Your task to perform on an android device: Go to settings Image 0: 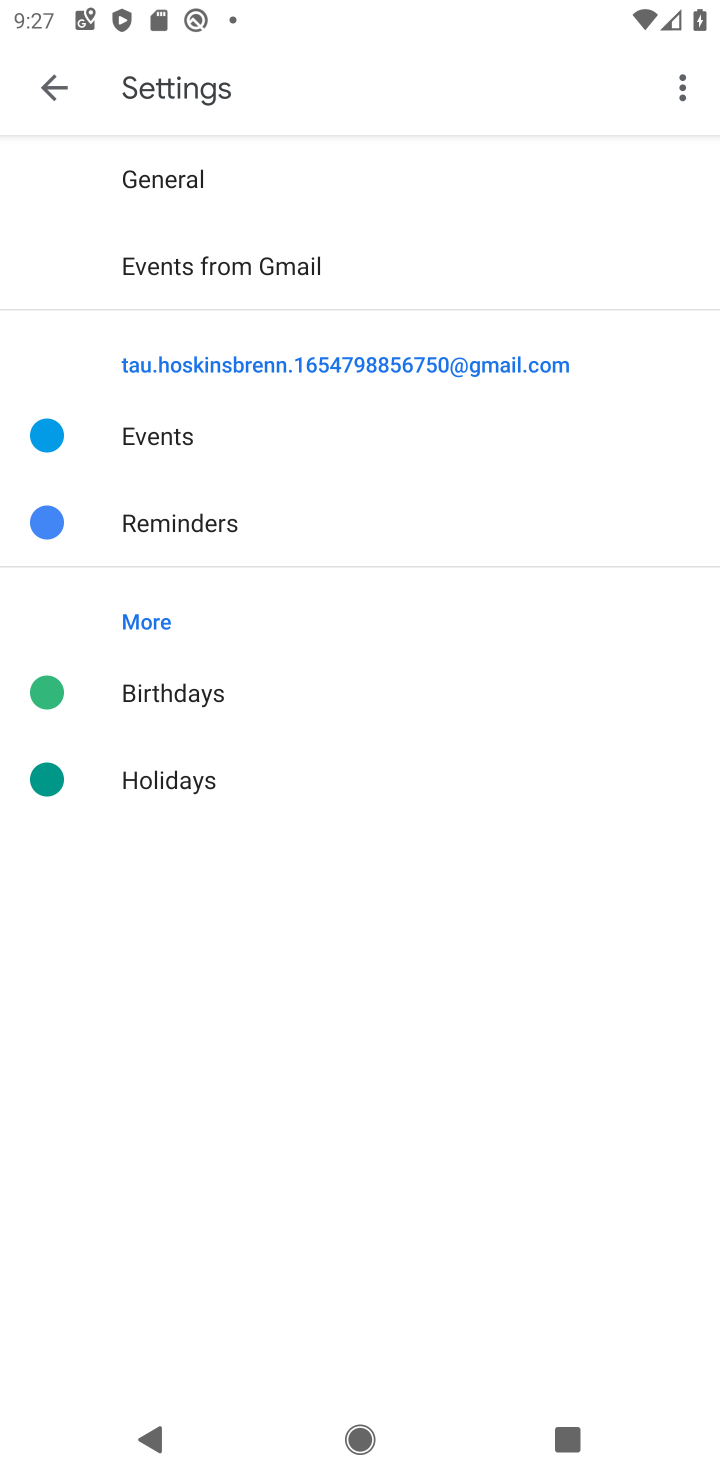
Step 0: press home button
Your task to perform on an android device: Go to settings Image 1: 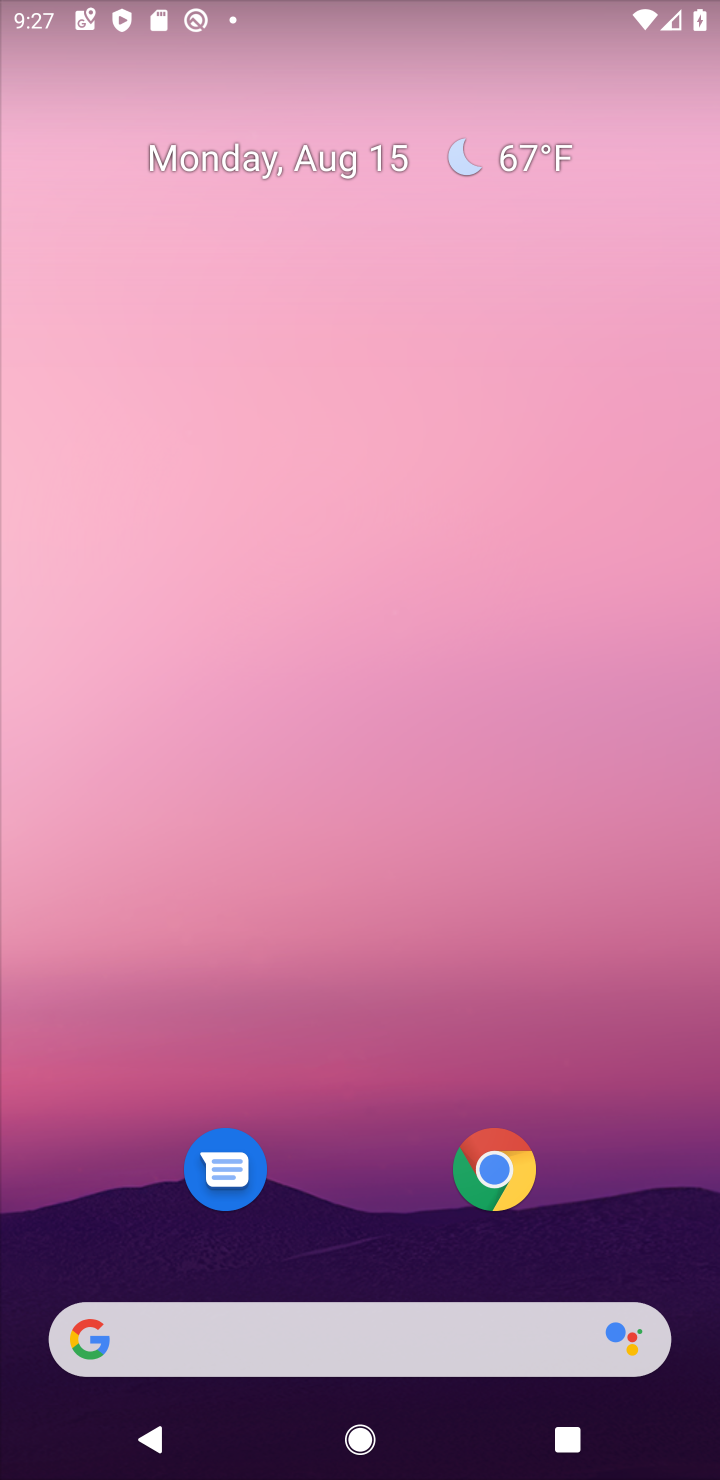
Step 1: drag from (491, 948) to (651, 227)
Your task to perform on an android device: Go to settings Image 2: 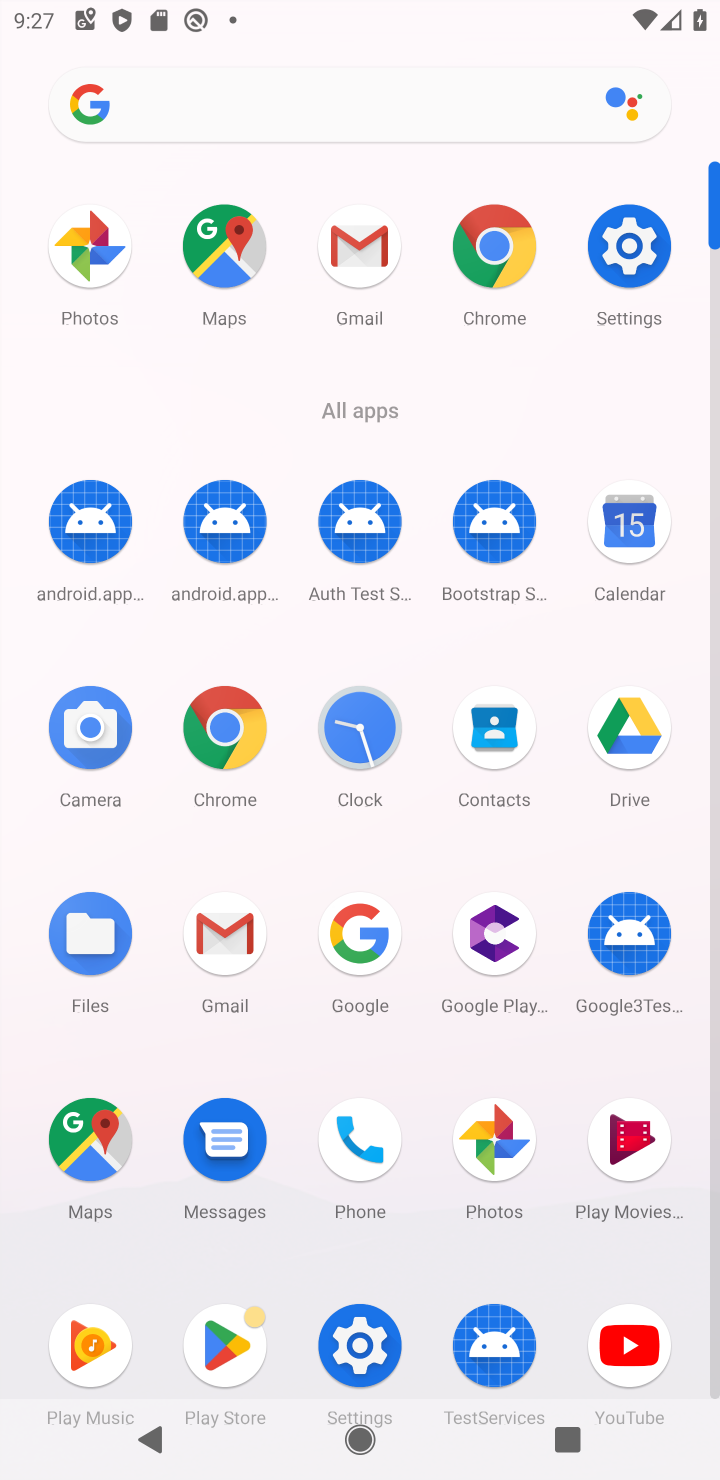
Step 2: click (633, 237)
Your task to perform on an android device: Go to settings Image 3: 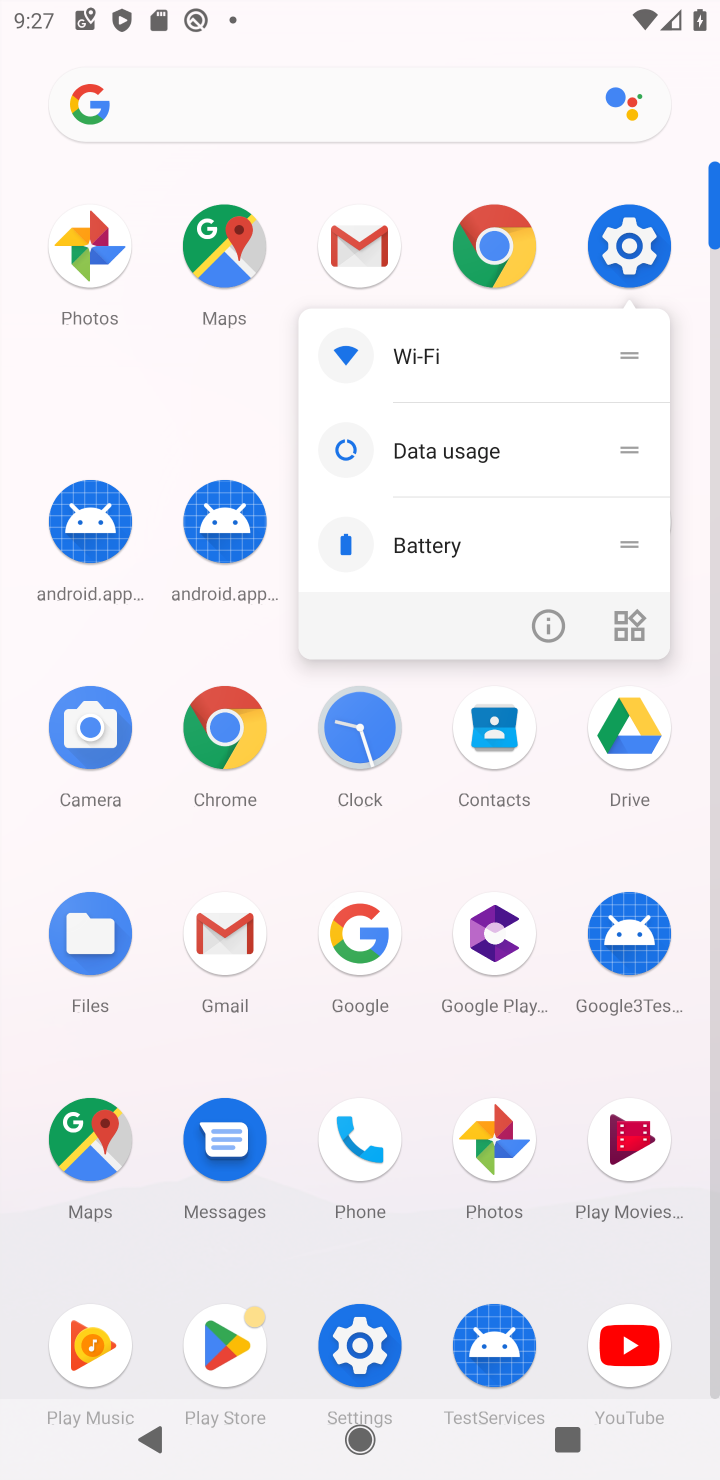
Step 3: click (629, 251)
Your task to perform on an android device: Go to settings Image 4: 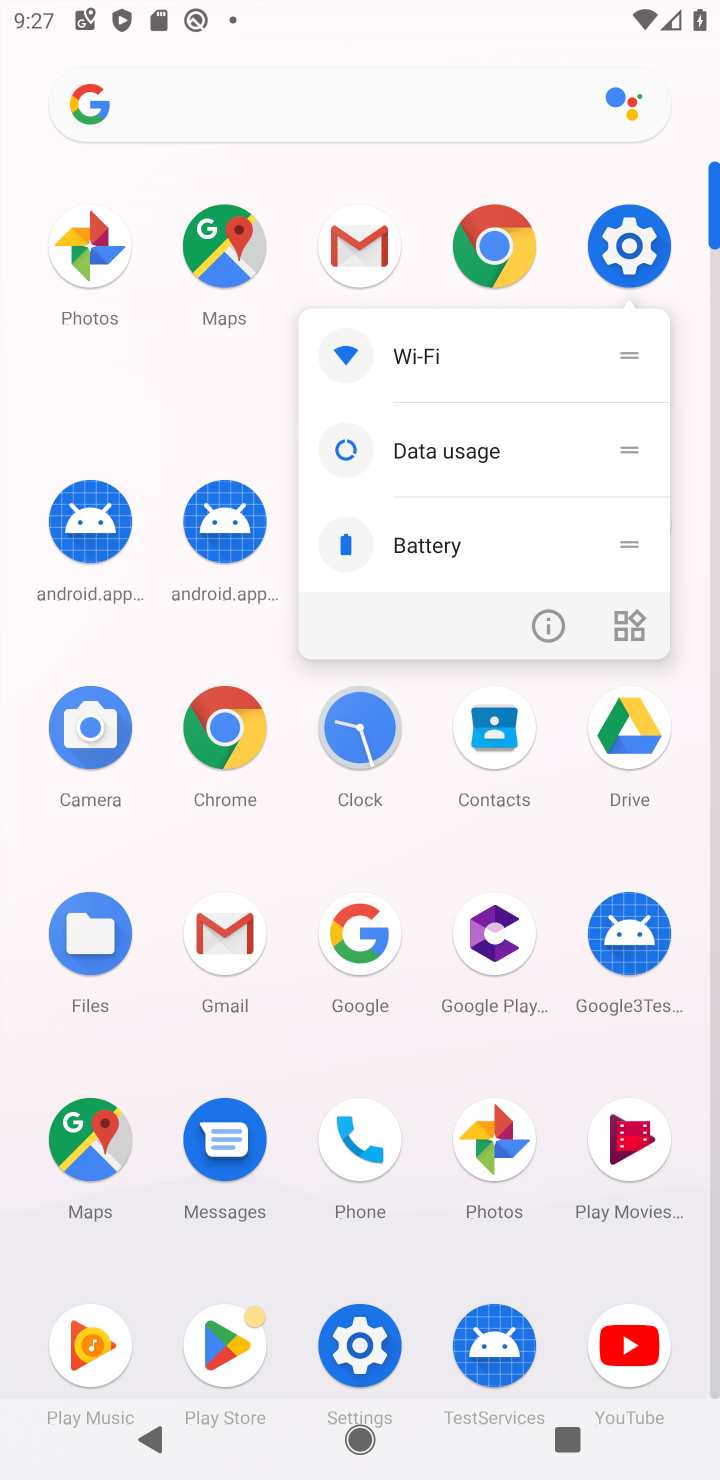
Step 4: click (627, 251)
Your task to perform on an android device: Go to settings Image 5: 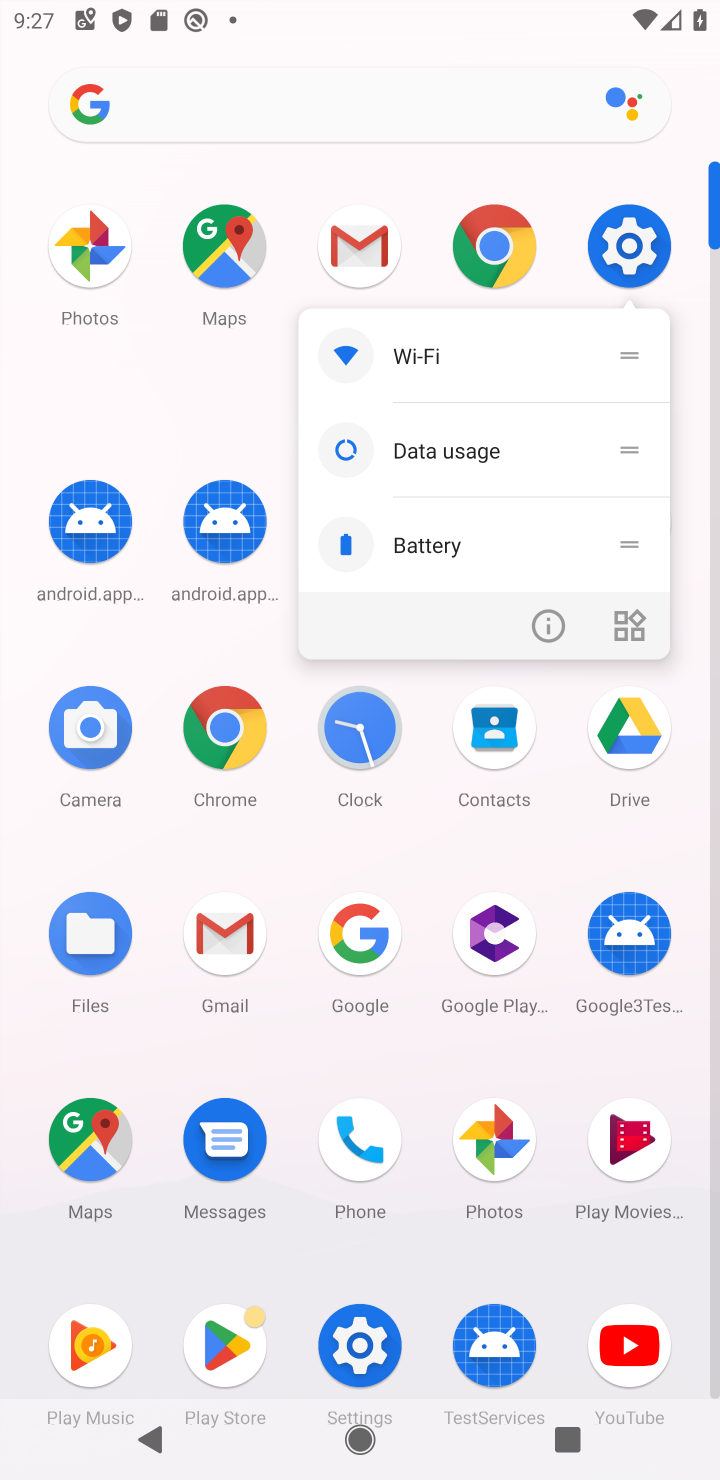
Step 5: click (627, 258)
Your task to perform on an android device: Go to settings Image 6: 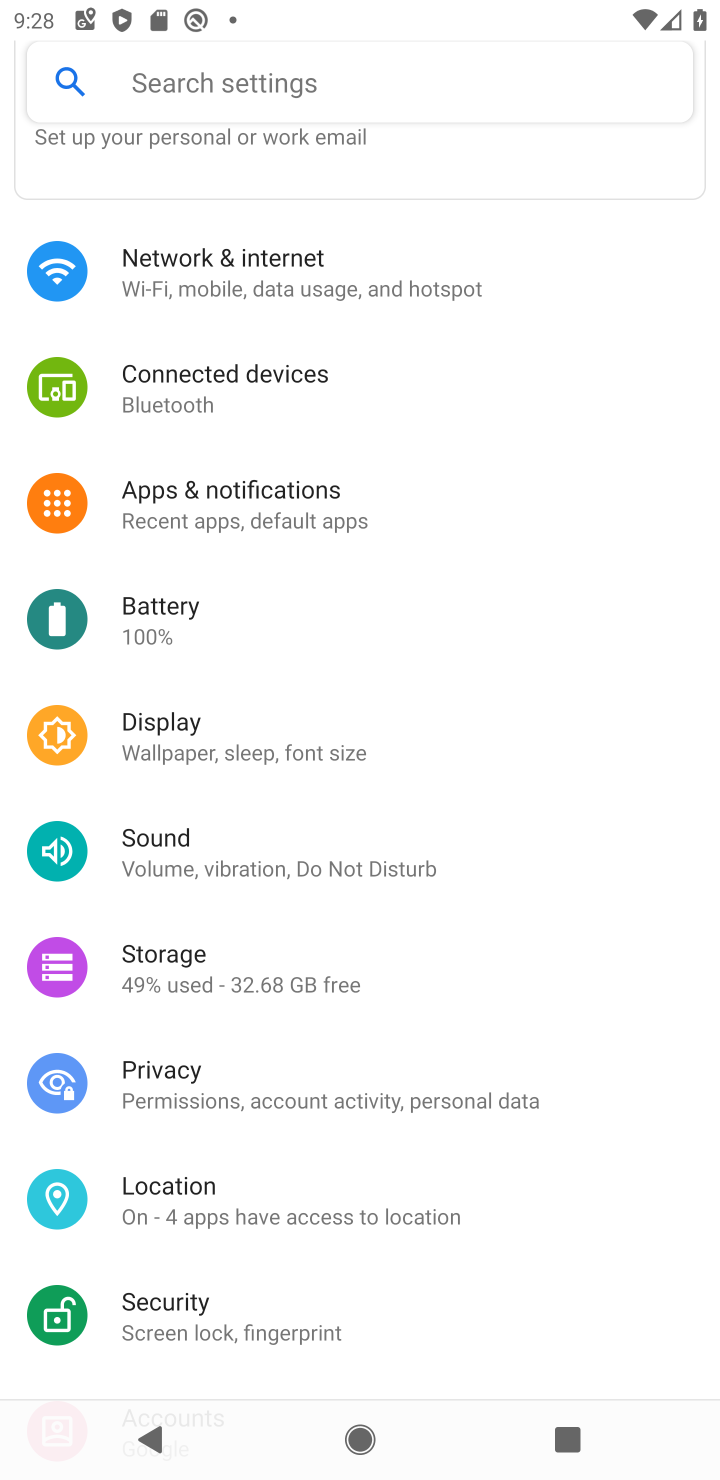
Step 6: task complete